Your task to perform on an android device: toggle notifications settings in the gmail app Image 0: 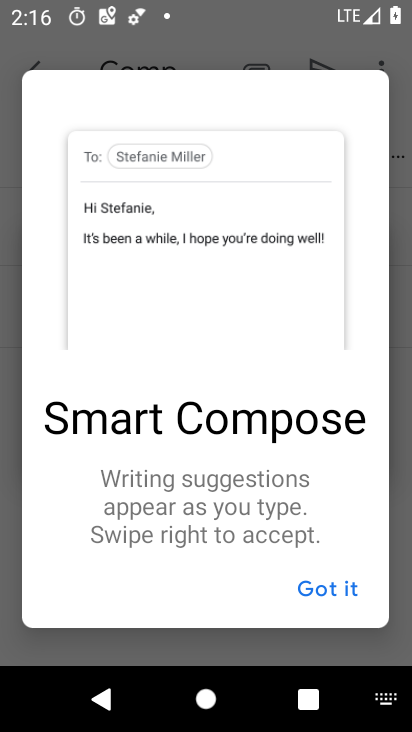
Step 0: press home button
Your task to perform on an android device: toggle notifications settings in the gmail app Image 1: 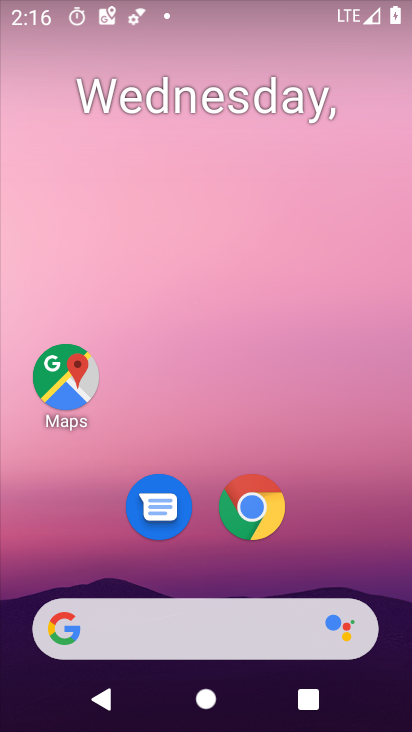
Step 1: drag from (320, 518) to (331, 33)
Your task to perform on an android device: toggle notifications settings in the gmail app Image 2: 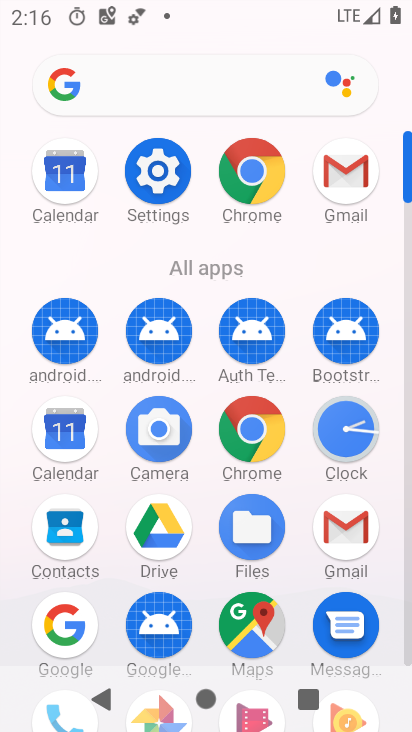
Step 2: click (355, 521)
Your task to perform on an android device: toggle notifications settings in the gmail app Image 3: 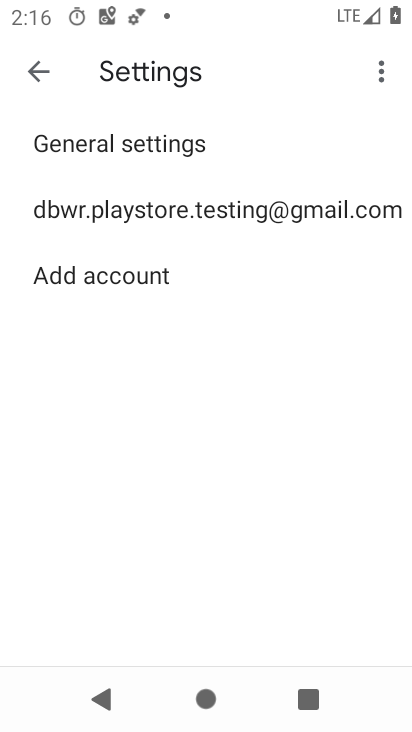
Step 3: click (161, 215)
Your task to perform on an android device: toggle notifications settings in the gmail app Image 4: 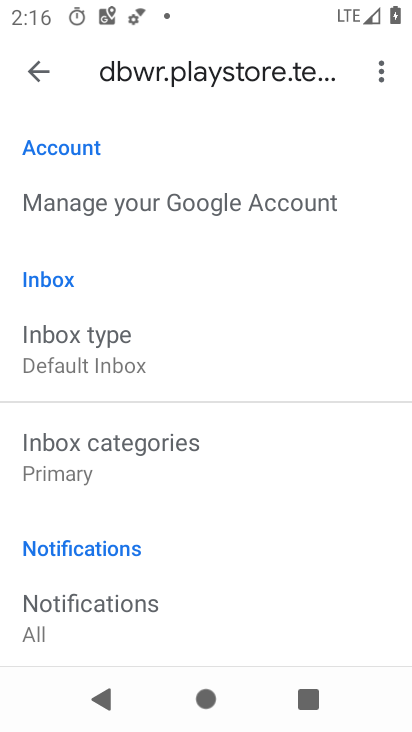
Step 4: drag from (140, 572) to (260, 139)
Your task to perform on an android device: toggle notifications settings in the gmail app Image 5: 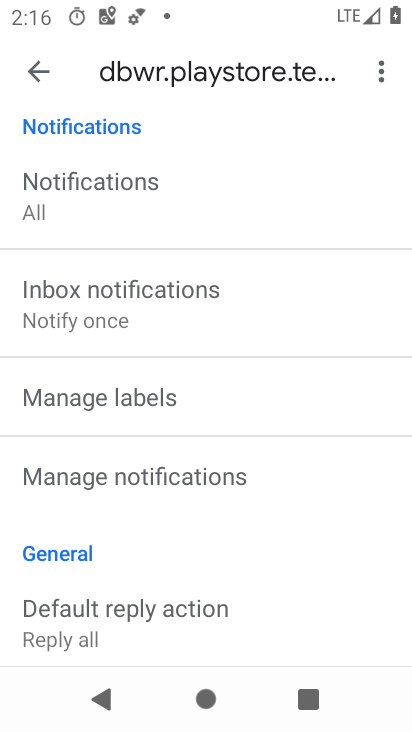
Step 5: click (180, 480)
Your task to perform on an android device: toggle notifications settings in the gmail app Image 6: 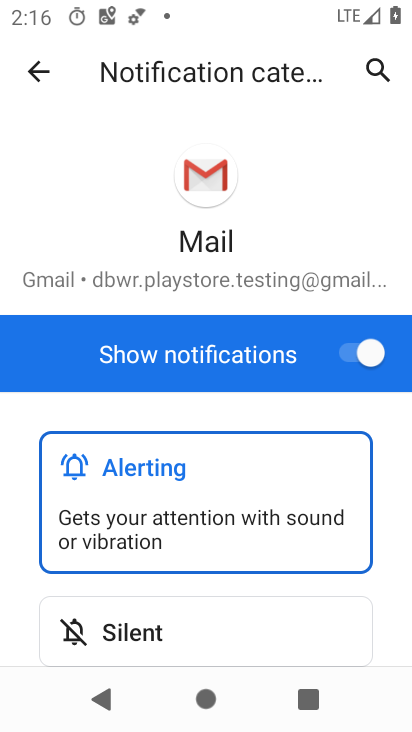
Step 6: click (336, 354)
Your task to perform on an android device: toggle notifications settings in the gmail app Image 7: 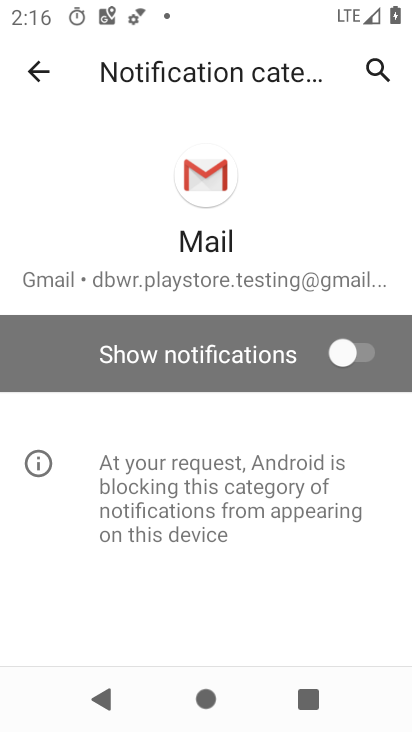
Step 7: task complete